Your task to perform on an android device: What time is it in Tokyo? Image 0: 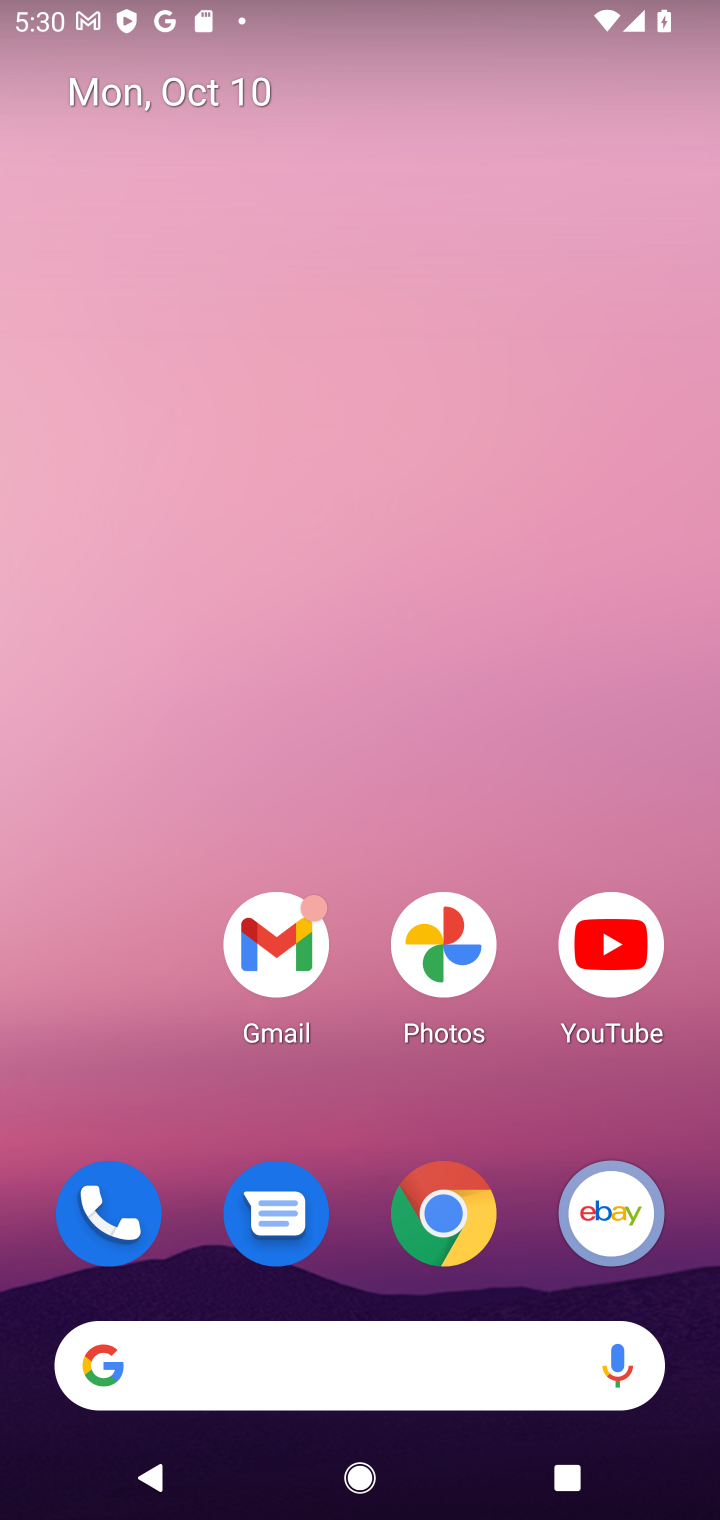
Step 0: click (384, 1369)
Your task to perform on an android device: What time is it in Tokyo? Image 1: 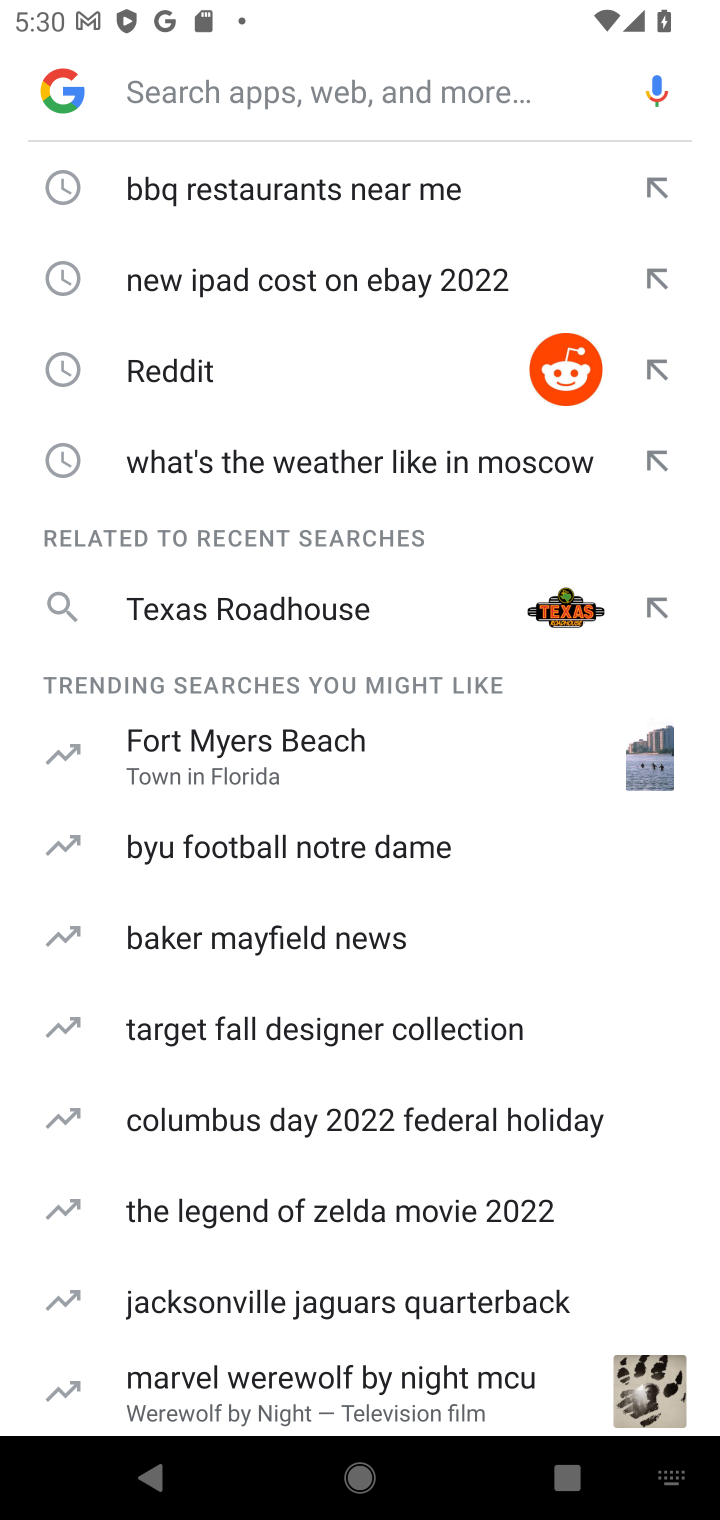
Step 1: type "time is it in Tokyo"
Your task to perform on an android device: What time is it in Tokyo? Image 2: 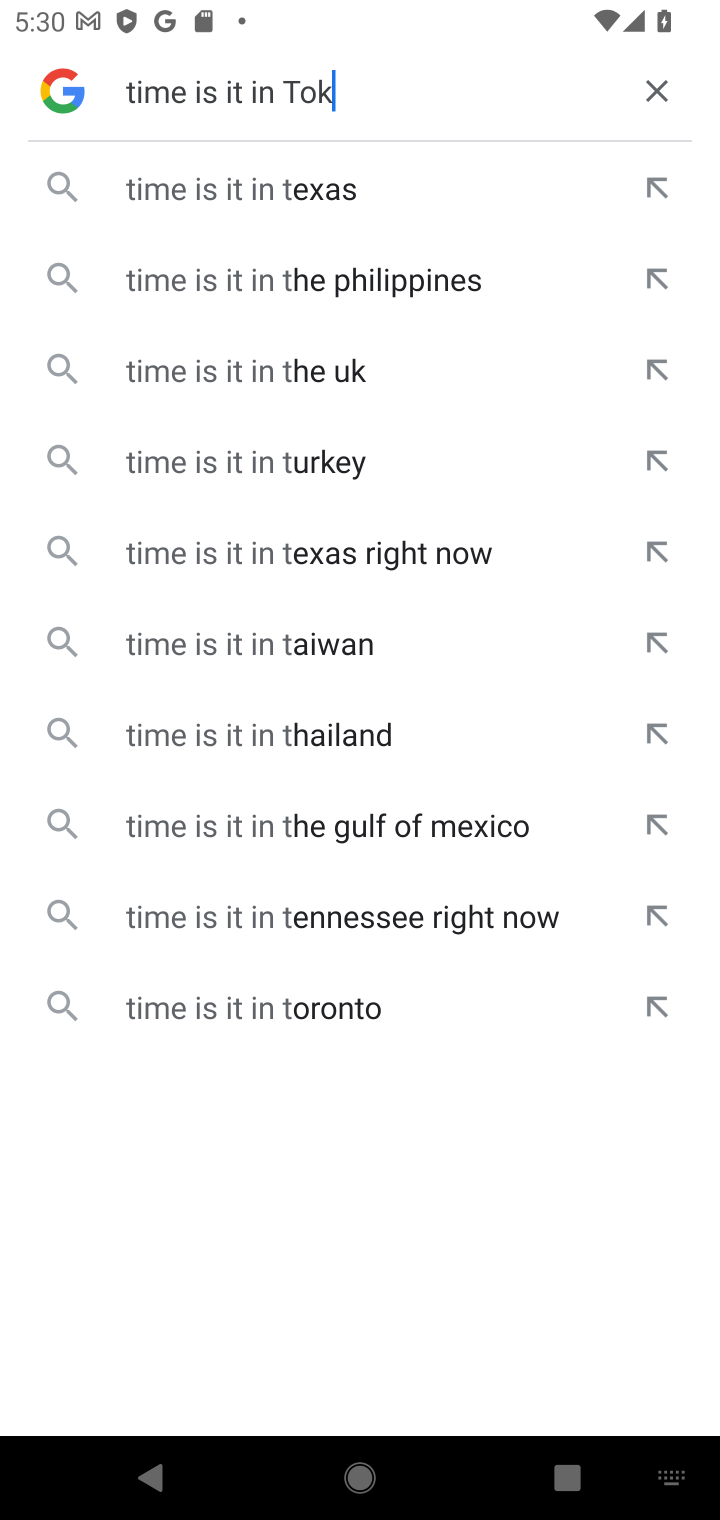
Step 2: type ""
Your task to perform on an android device: What time is it in Tokyo? Image 3: 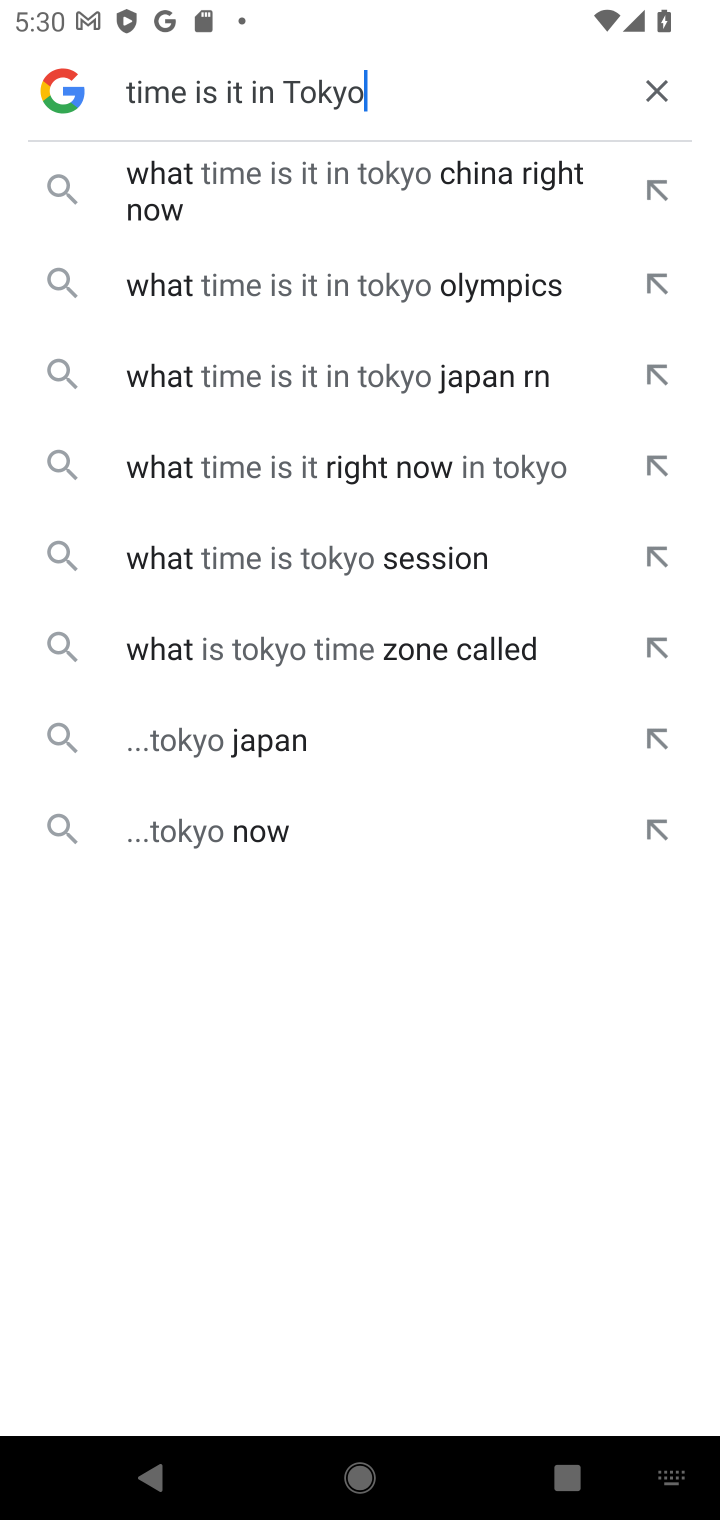
Step 3: click (310, 832)
Your task to perform on an android device: What time is it in Tokyo? Image 4: 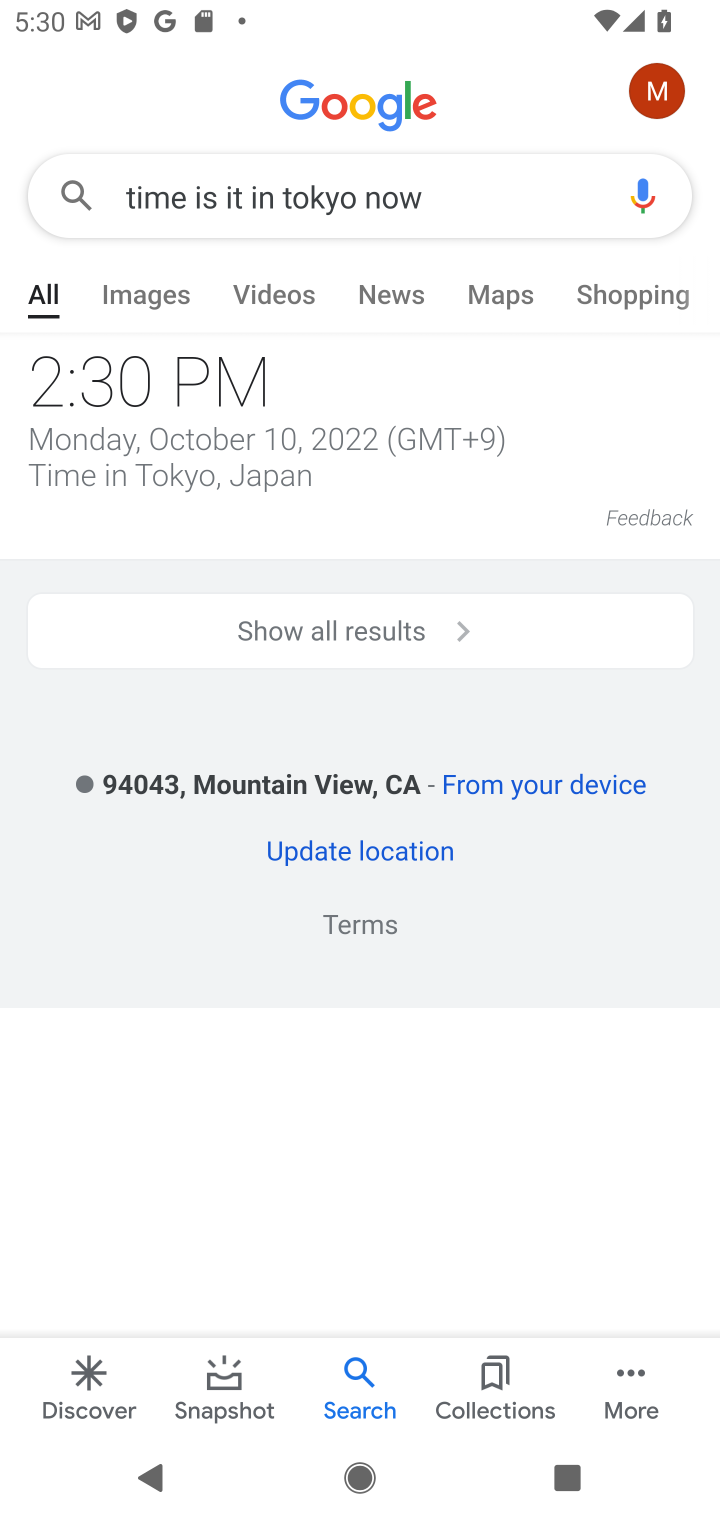
Step 4: task complete